Your task to perform on an android device: Go to network settings Image 0: 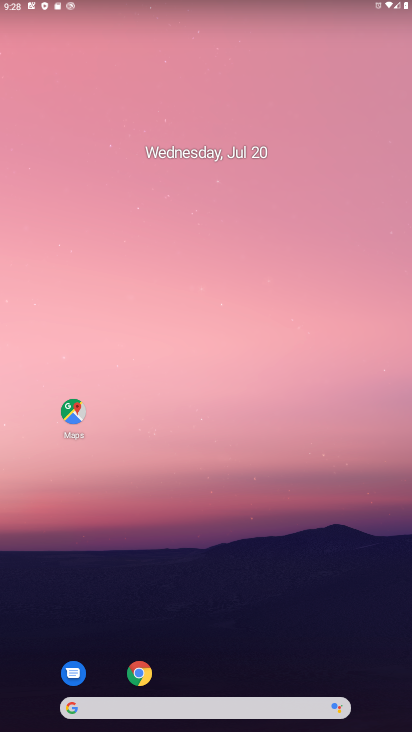
Step 0: drag from (204, 727) to (126, 12)
Your task to perform on an android device: Go to network settings Image 1: 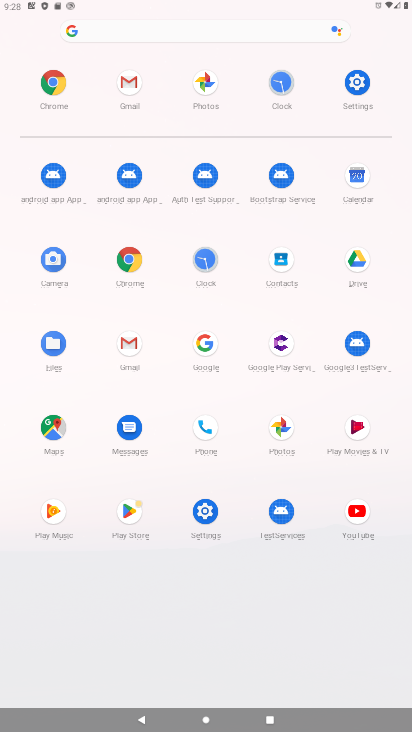
Step 1: click (356, 83)
Your task to perform on an android device: Go to network settings Image 2: 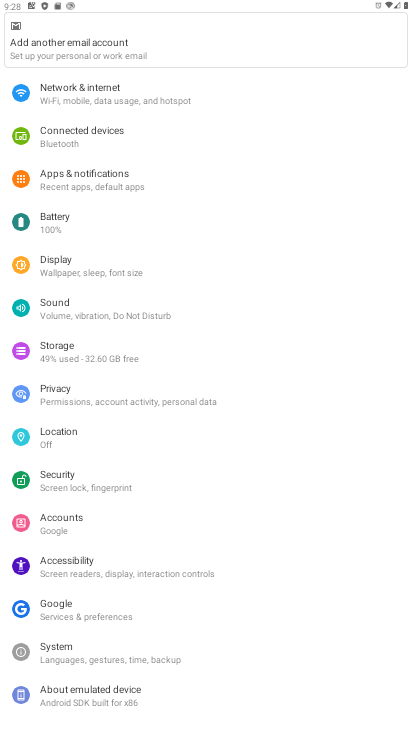
Step 2: click (72, 98)
Your task to perform on an android device: Go to network settings Image 3: 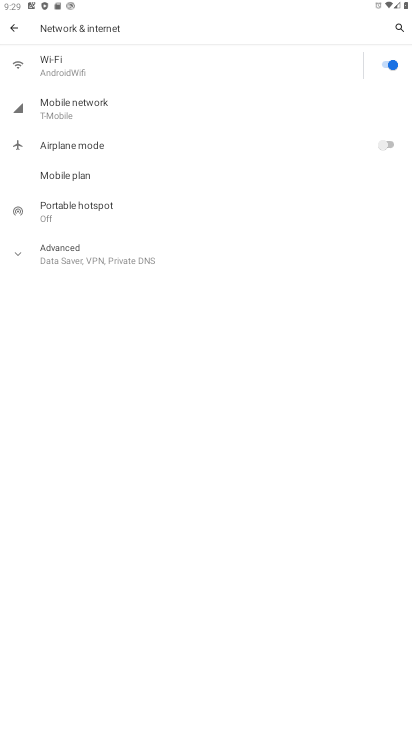
Step 3: task complete